Your task to perform on an android device: Open calendar and show me the fourth week of next month Image 0: 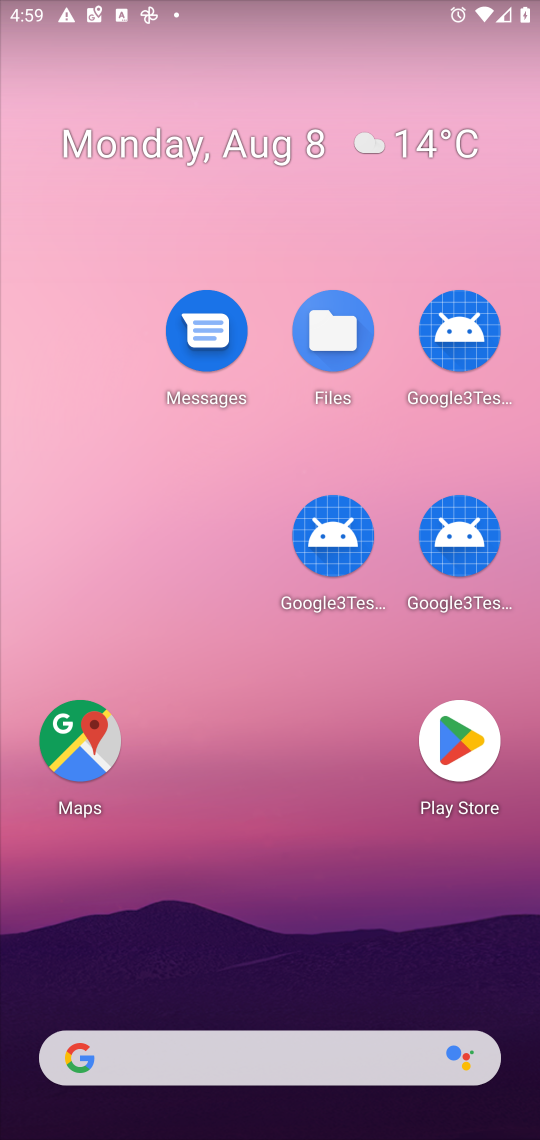
Step 0: drag from (375, 1068) to (303, 177)
Your task to perform on an android device: Open calendar and show me the fourth week of next month Image 1: 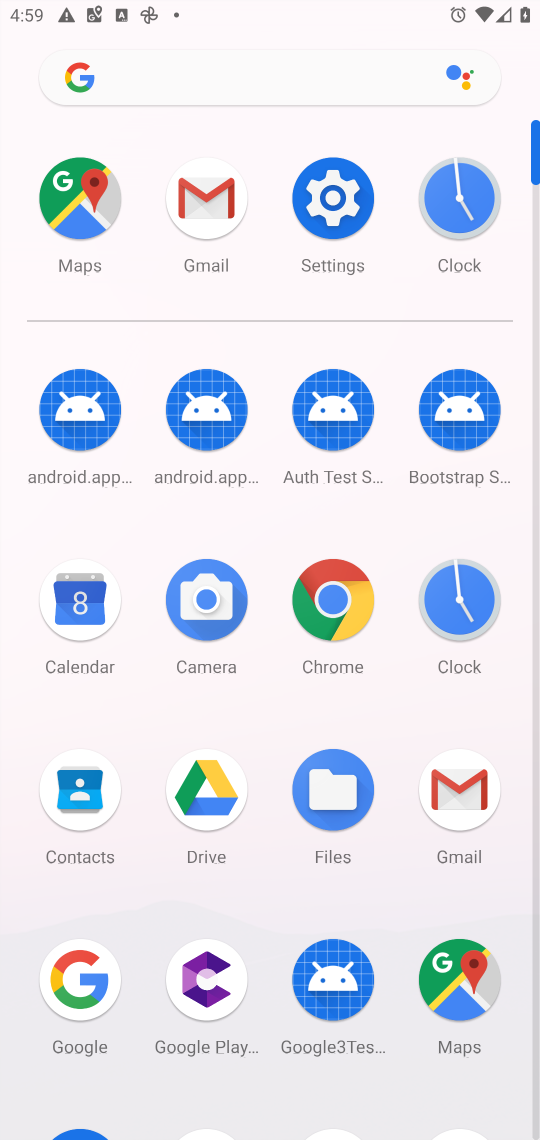
Step 1: click (89, 600)
Your task to perform on an android device: Open calendar and show me the fourth week of next month Image 2: 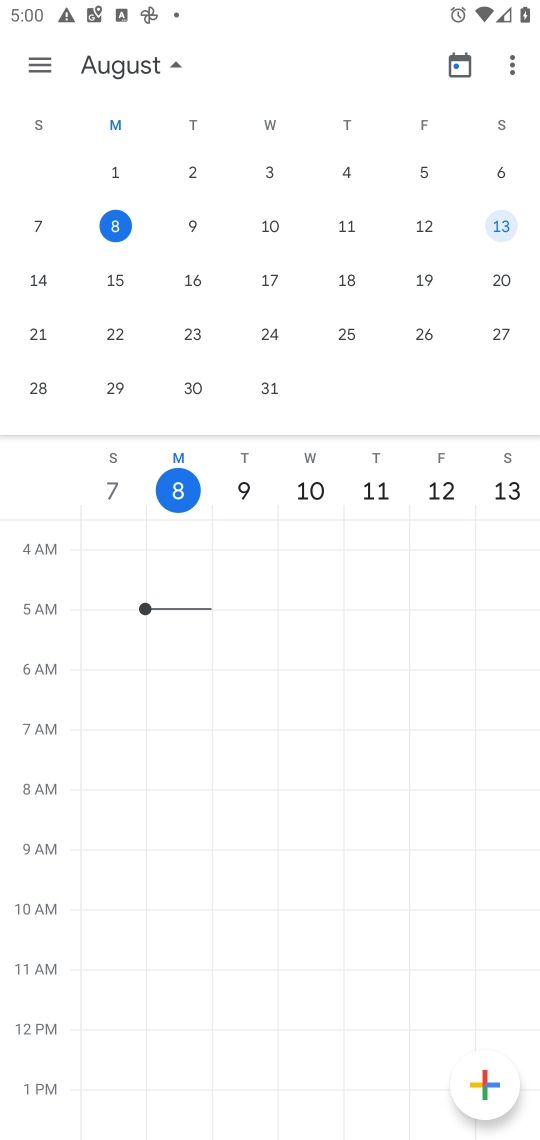
Step 2: drag from (515, 301) to (3, 222)
Your task to perform on an android device: Open calendar and show me the fourth week of next month Image 3: 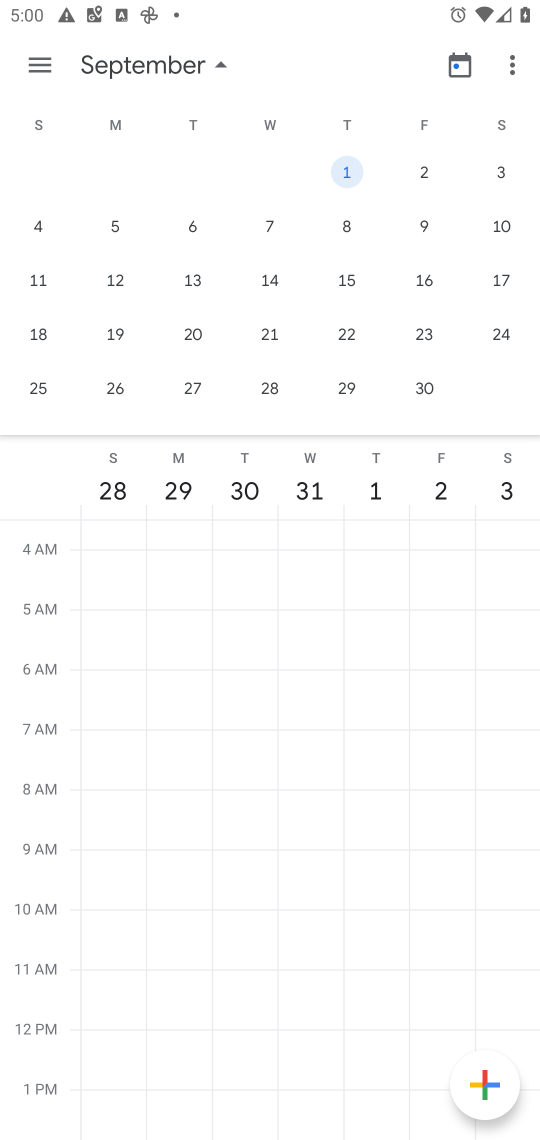
Step 3: click (270, 336)
Your task to perform on an android device: Open calendar and show me the fourth week of next month Image 4: 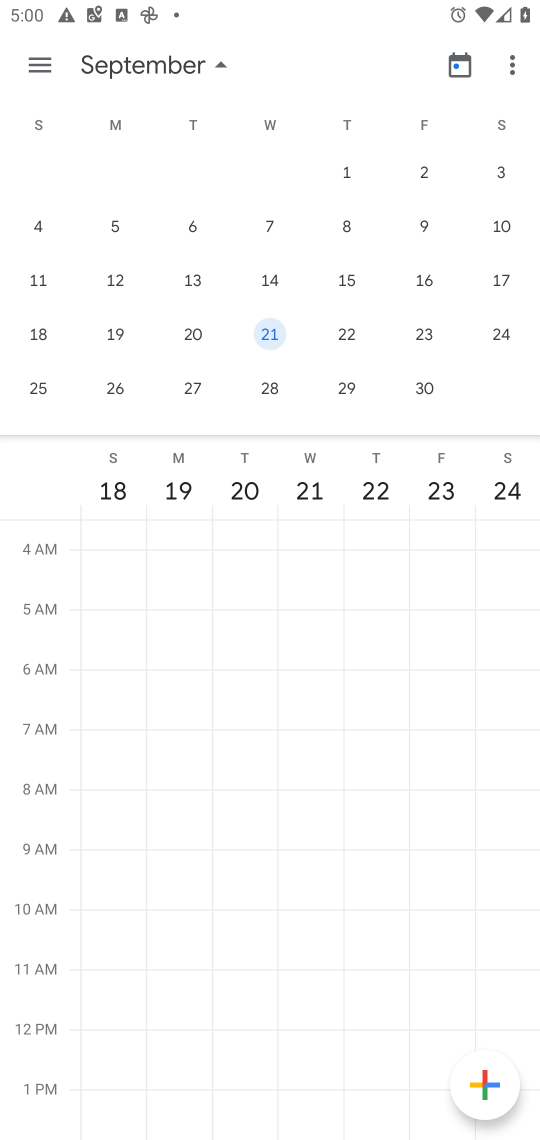
Step 4: task complete